Your task to perform on an android device: Go to privacy settings Image 0: 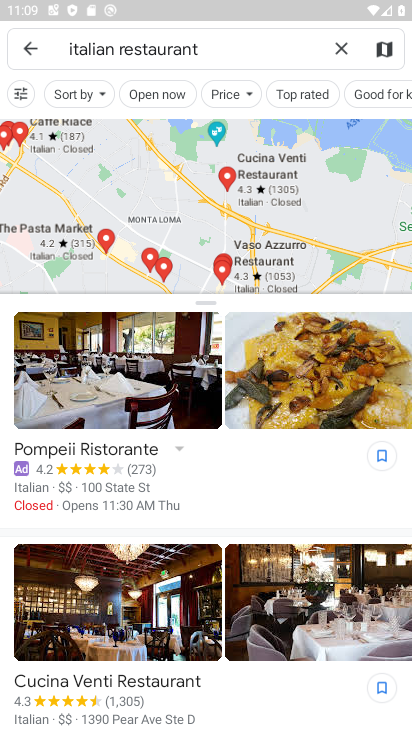
Step 0: press home button
Your task to perform on an android device: Go to privacy settings Image 1: 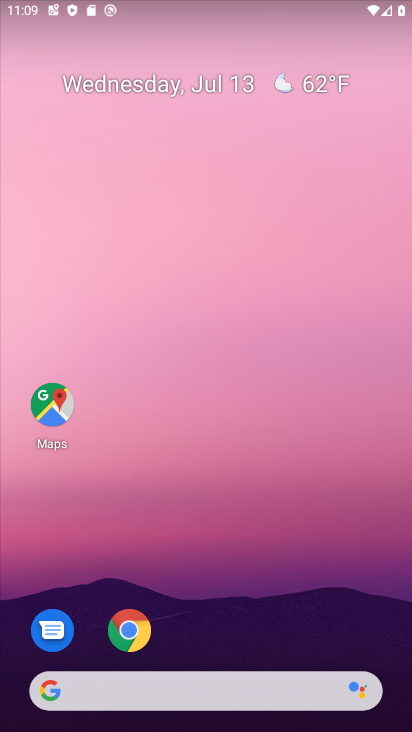
Step 1: drag from (279, 498) to (196, 0)
Your task to perform on an android device: Go to privacy settings Image 2: 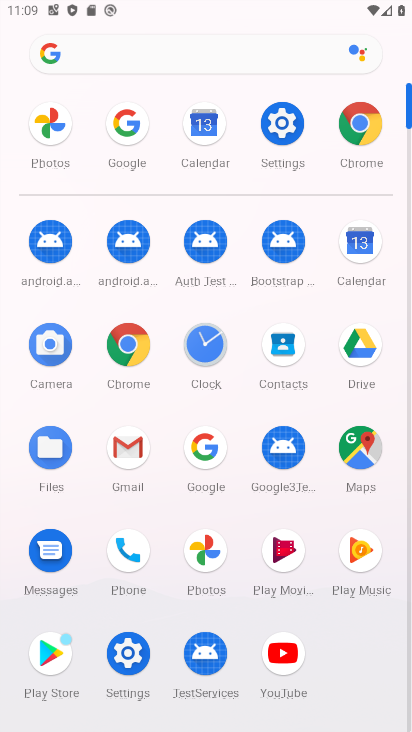
Step 2: click (284, 141)
Your task to perform on an android device: Go to privacy settings Image 3: 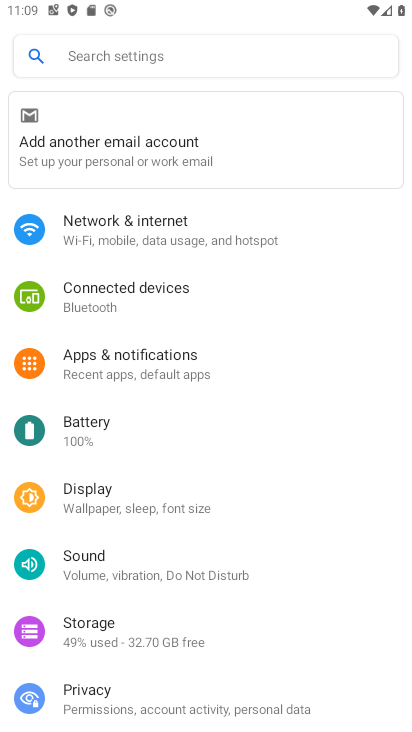
Step 3: drag from (165, 692) to (237, 189)
Your task to perform on an android device: Go to privacy settings Image 4: 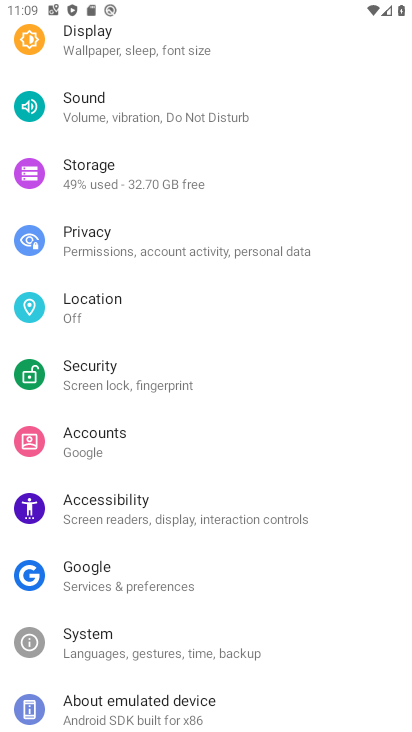
Step 4: click (123, 232)
Your task to perform on an android device: Go to privacy settings Image 5: 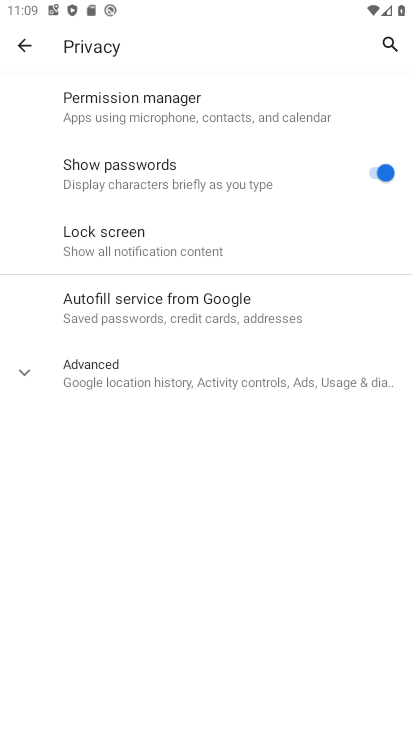
Step 5: task complete